Your task to perform on an android device: Check the news Image 0: 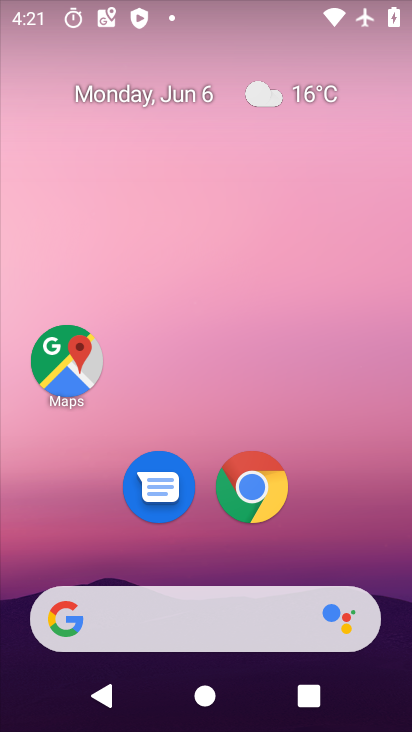
Step 0: click (259, 483)
Your task to perform on an android device: Check the news Image 1: 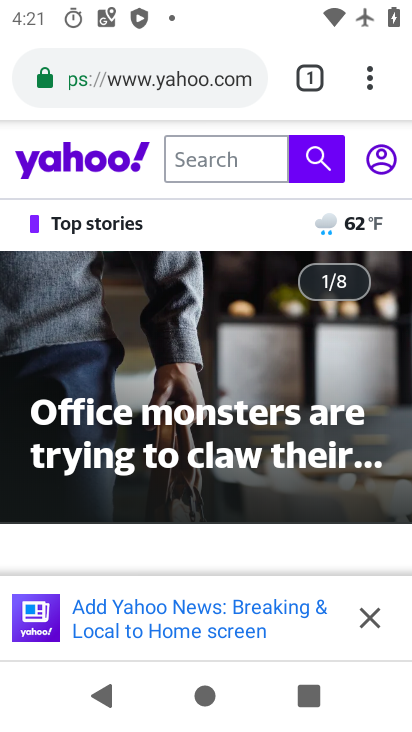
Step 1: click (233, 83)
Your task to perform on an android device: Check the news Image 2: 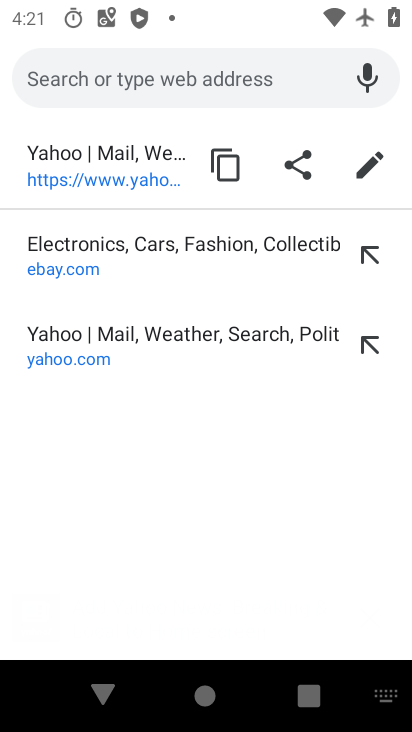
Step 2: type "news"
Your task to perform on an android device: Check the news Image 3: 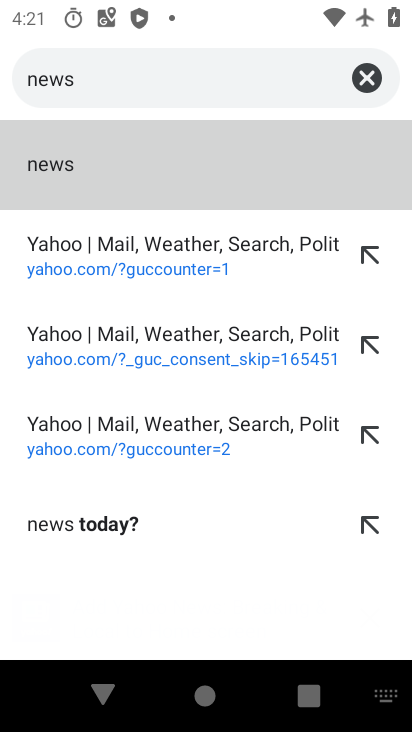
Step 3: click (77, 163)
Your task to perform on an android device: Check the news Image 4: 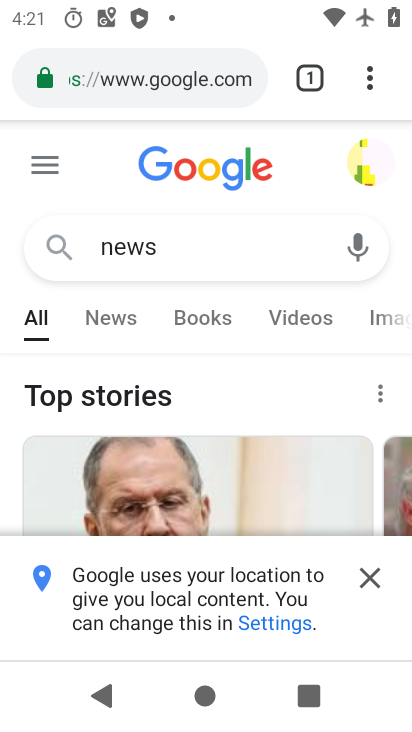
Step 4: click (106, 323)
Your task to perform on an android device: Check the news Image 5: 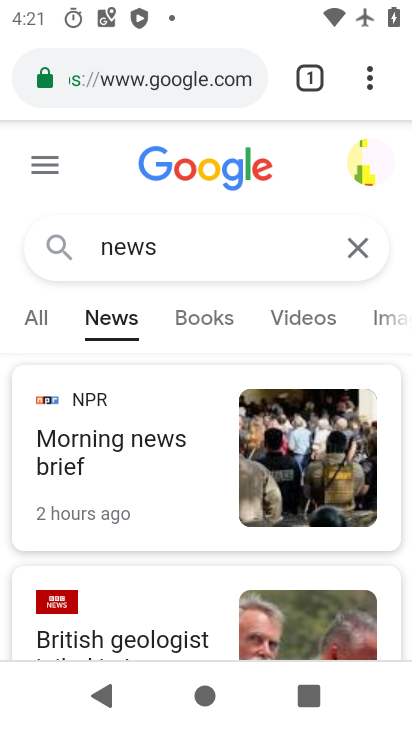
Step 5: task complete